Your task to perform on an android device: Is it going to rain this weekend? Image 0: 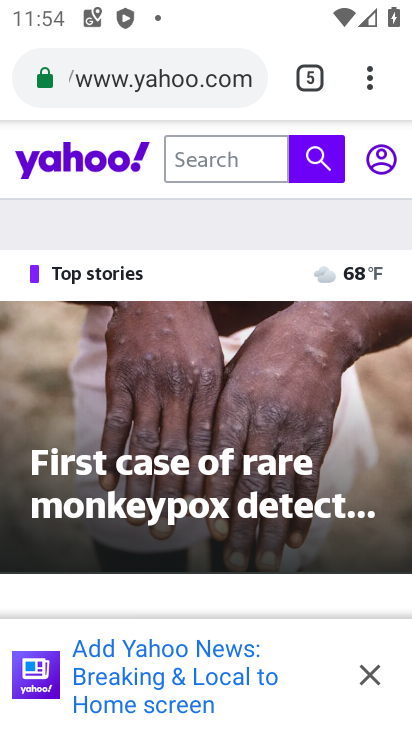
Step 0: press home button
Your task to perform on an android device: Is it going to rain this weekend? Image 1: 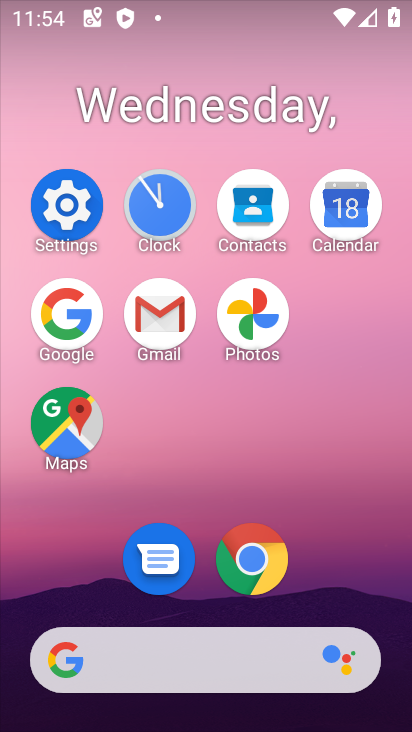
Step 1: click (69, 324)
Your task to perform on an android device: Is it going to rain this weekend? Image 2: 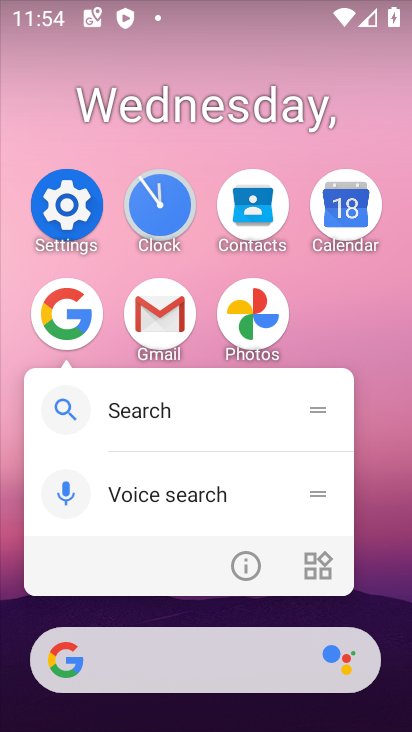
Step 2: click (69, 324)
Your task to perform on an android device: Is it going to rain this weekend? Image 3: 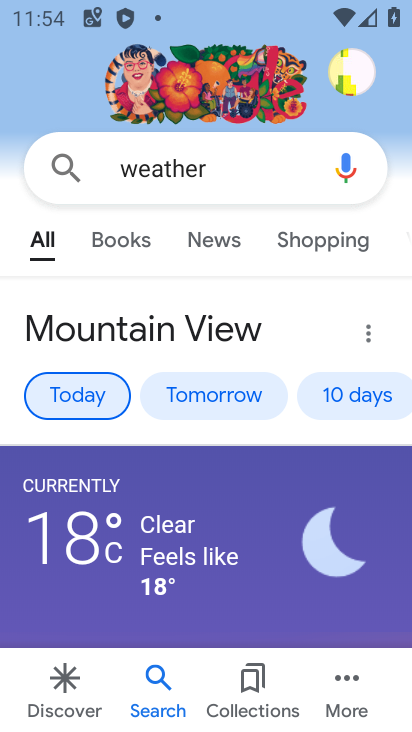
Step 3: task complete